Your task to perform on an android device: Go to eBay Image 0: 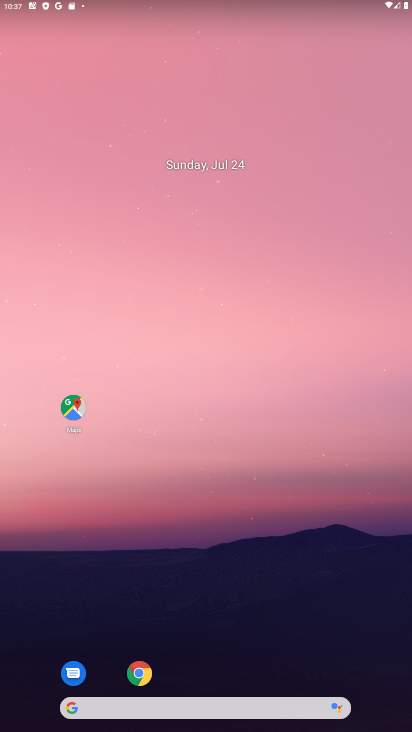
Step 0: click (136, 715)
Your task to perform on an android device: Go to eBay Image 1: 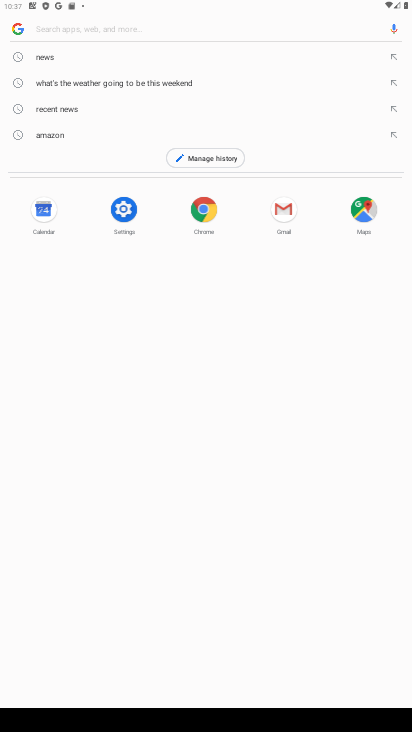
Step 1: type "eBay"
Your task to perform on an android device: Go to eBay Image 2: 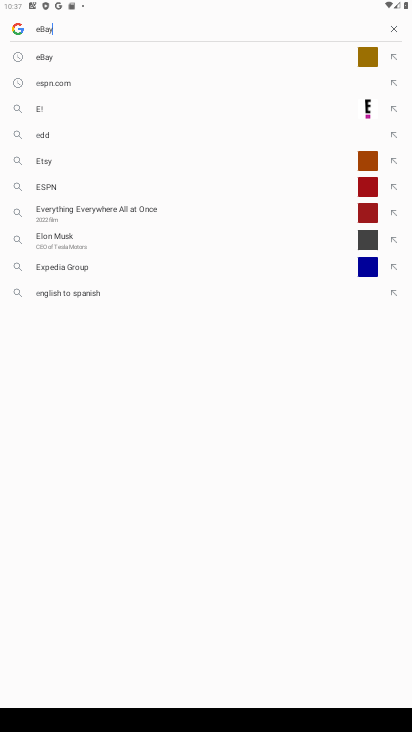
Step 2: type ""
Your task to perform on an android device: Go to eBay Image 3: 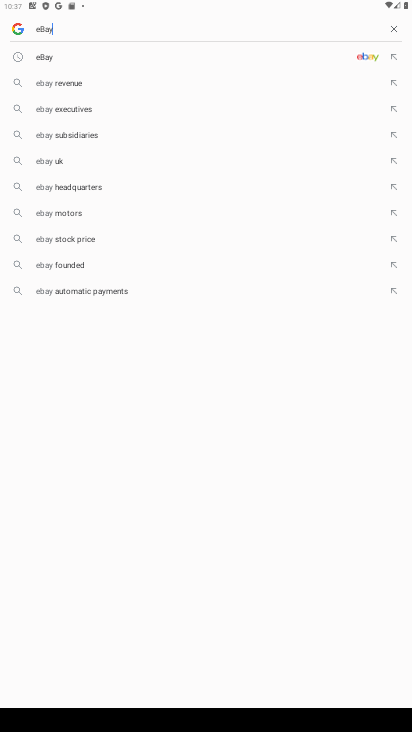
Step 3: click (45, 52)
Your task to perform on an android device: Go to eBay Image 4: 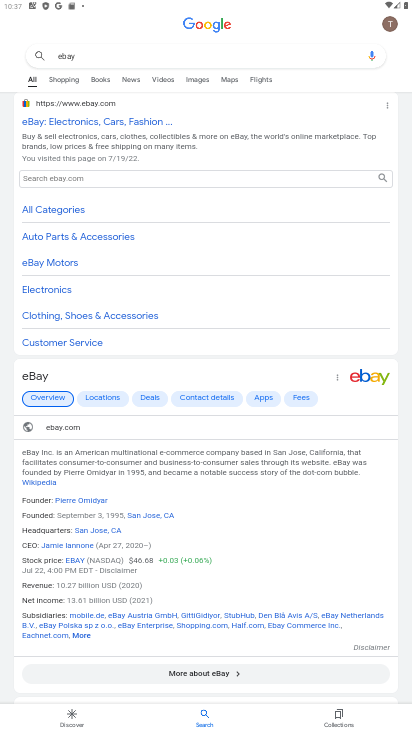
Step 4: task complete